Your task to perform on an android device: turn off location Image 0: 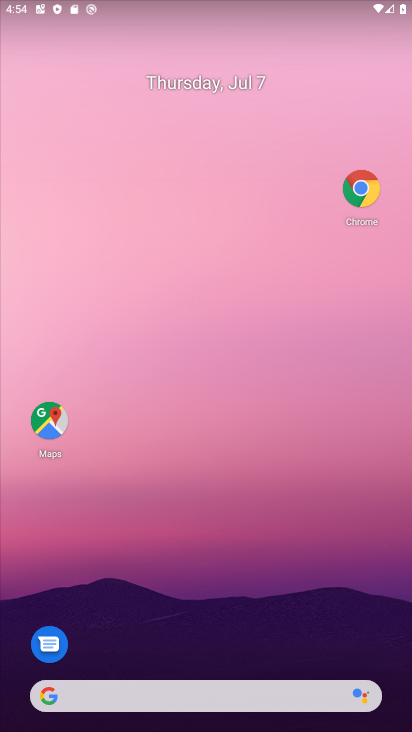
Step 0: drag from (309, 658) to (343, 96)
Your task to perform on an android device: turn off location Image 1: 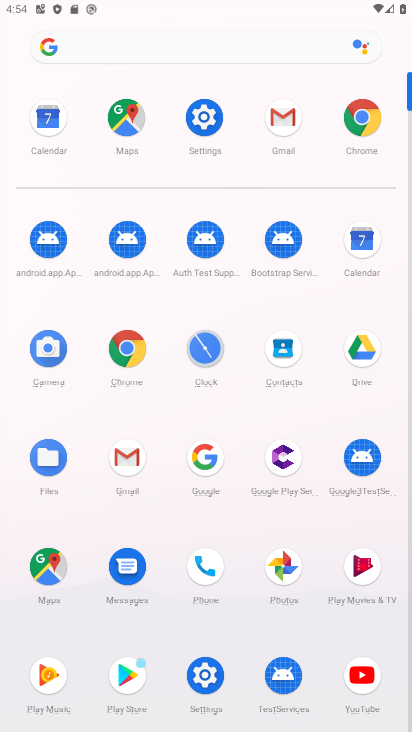
Step 1: click (206, 137)
Your task to perform on an android device: turn off location Image 2: 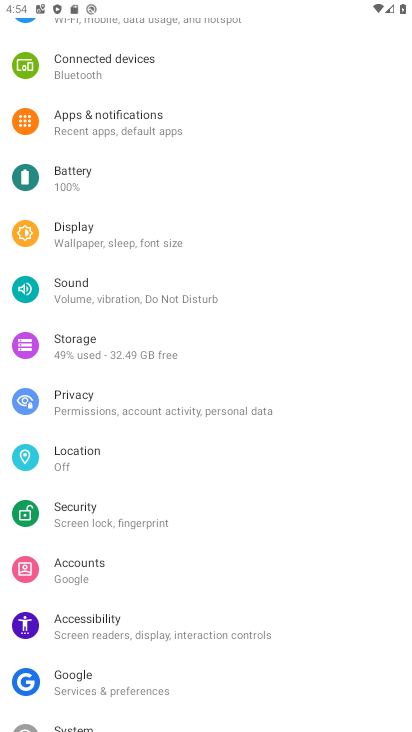
Step 2: click (107, 369)
Your task to perform on an android device: turn off location Image 3: 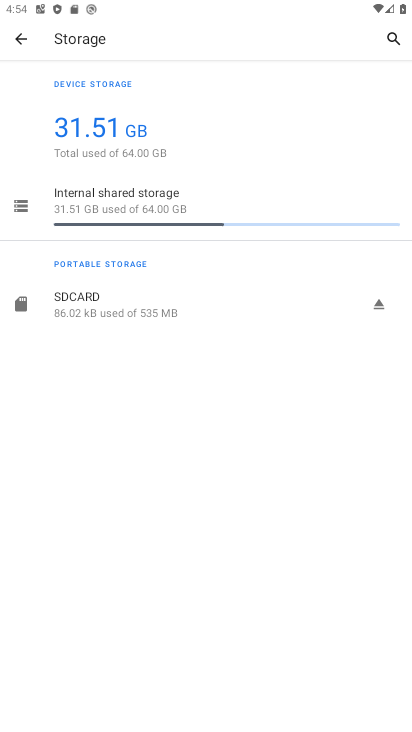
Step 3: click (25, 47)
Your task to perform on an android device: turn off location Image 4: 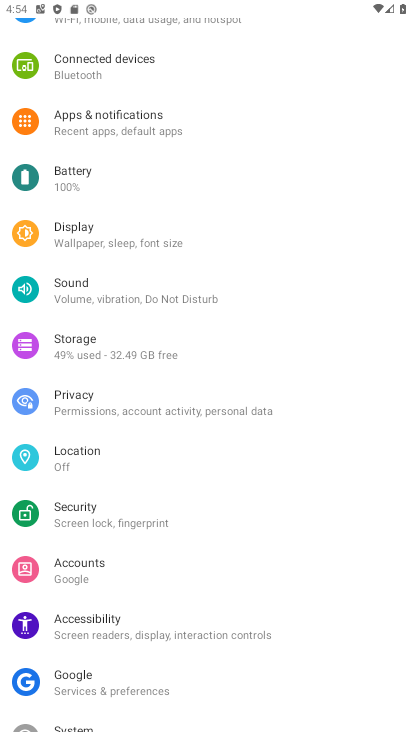
Step 4: click (80, 455)
Your task to perform on an android device: turn off location Image 5: 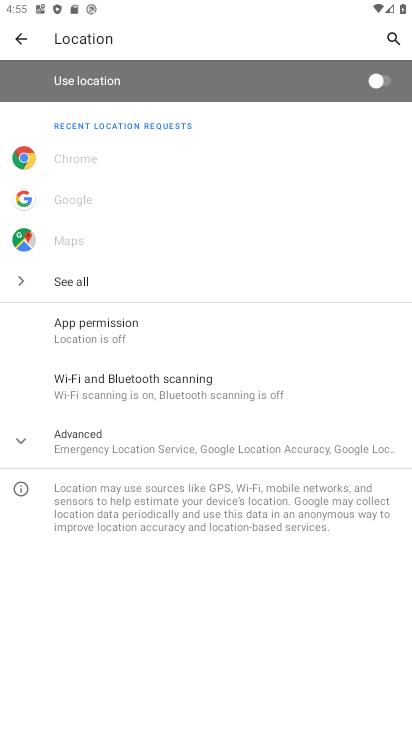
Step 5: task complete